Your task to perform on an android device: Go to internet settings Image 0: 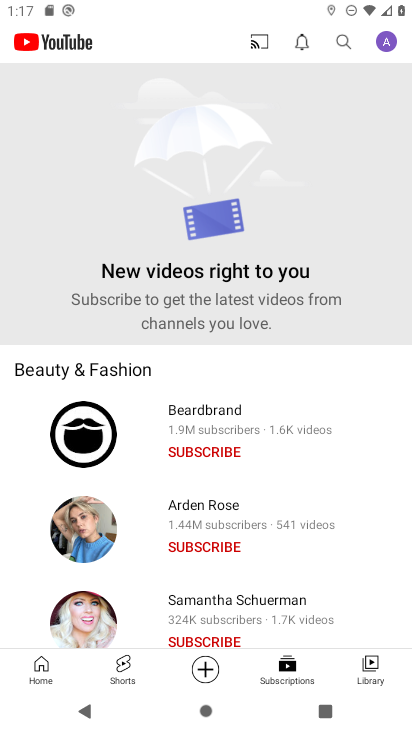
Step 0: press home button
Your task to perform on an android device: Go to internet settings Image 1: 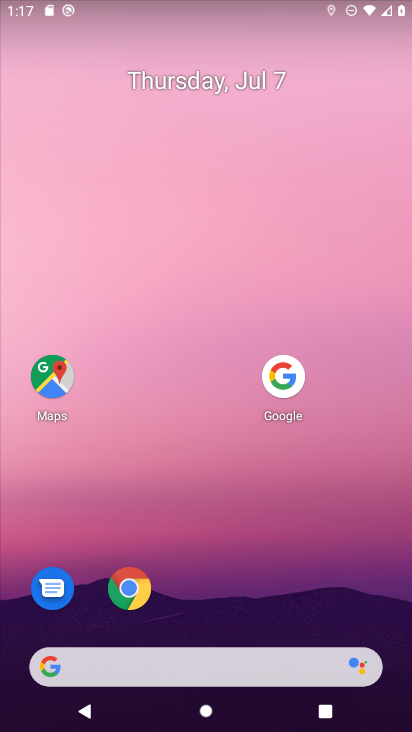
Step 1: drag from (192, 671) to (408, 25)
Your task to perform on an android device: Go to internet settings Image 2: 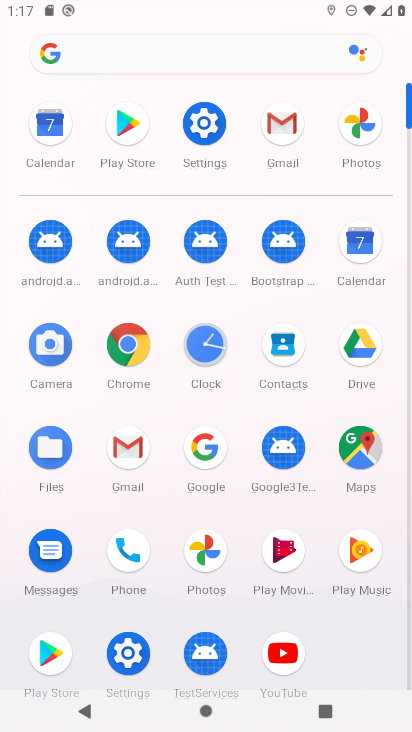
Step 2: click (209, 124)
Your task to perform on an android device: Go to internet settings Image 3: 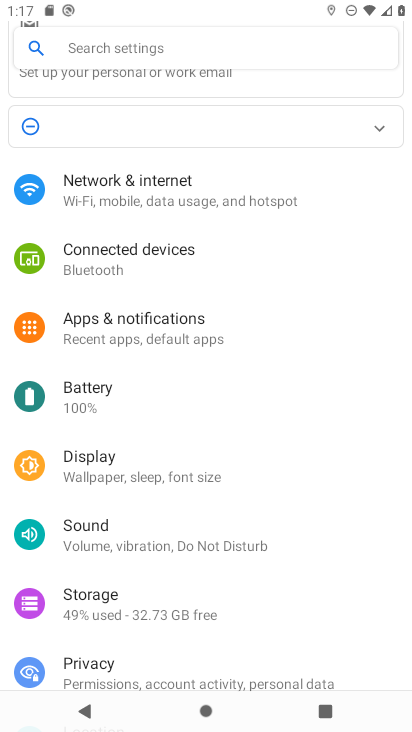
Step 3: click (174, 182)
Your task to perform on an android device: Go to internet settings Image 4: 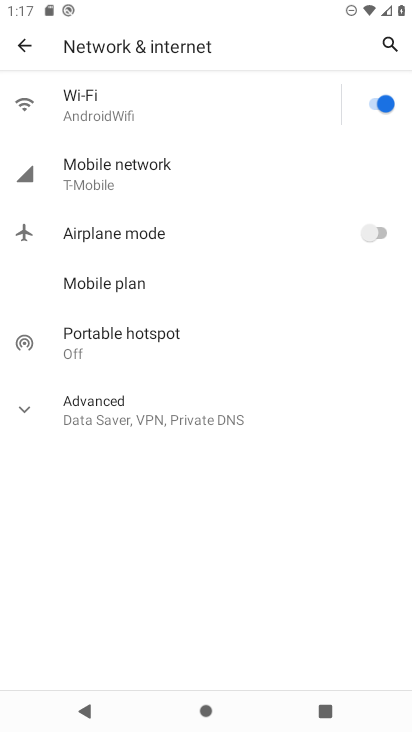
Step 4: click (115, 107)
Your task to perform on an android device: Go to internet settings Image 5: 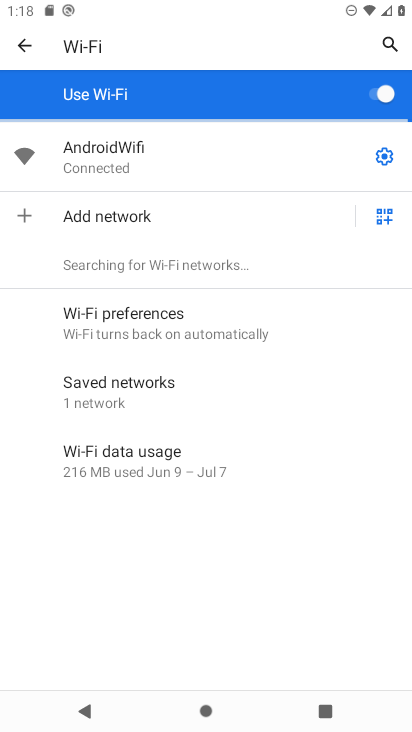
Step 5: task complete